Your task to perform on an android device: open app "Clock" Image 0: 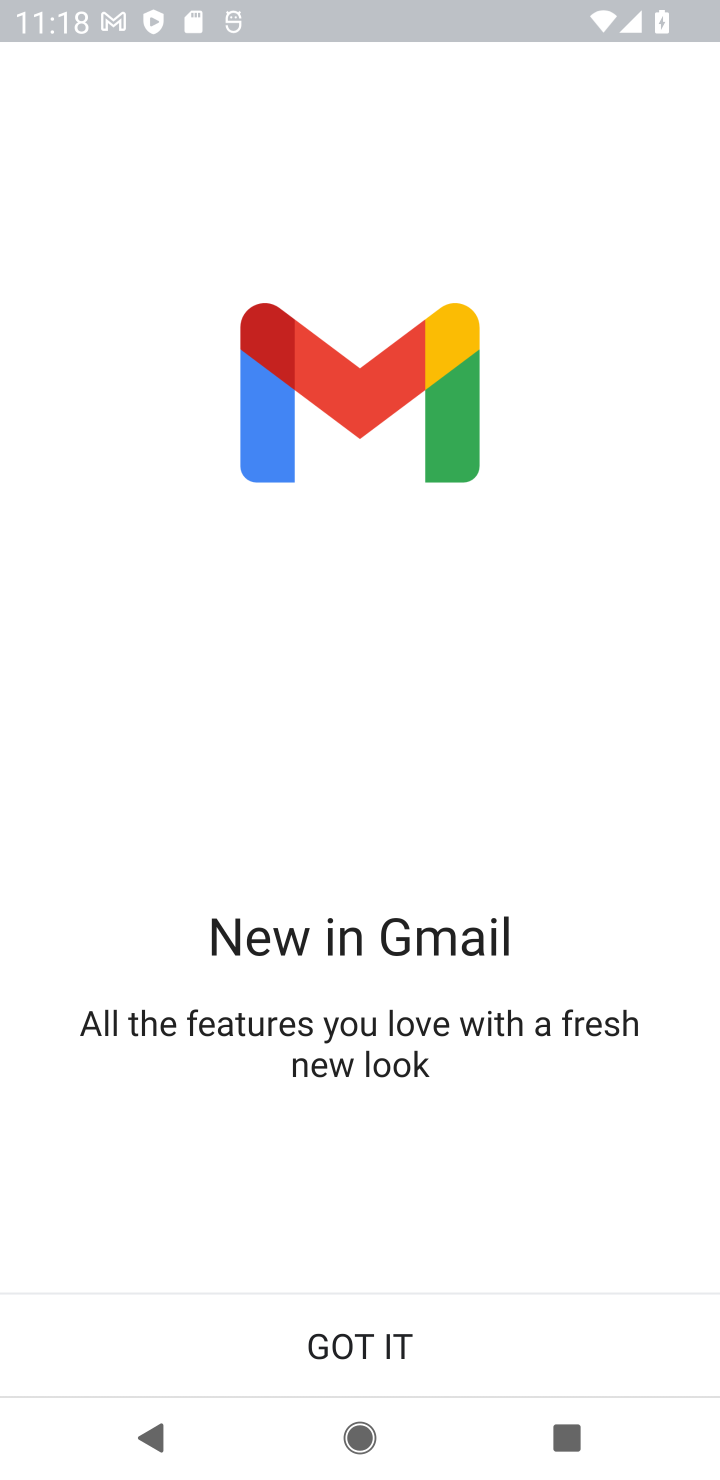
Step 0: press home button
Your task to perform on an android device: open app "Clock" Image 1: 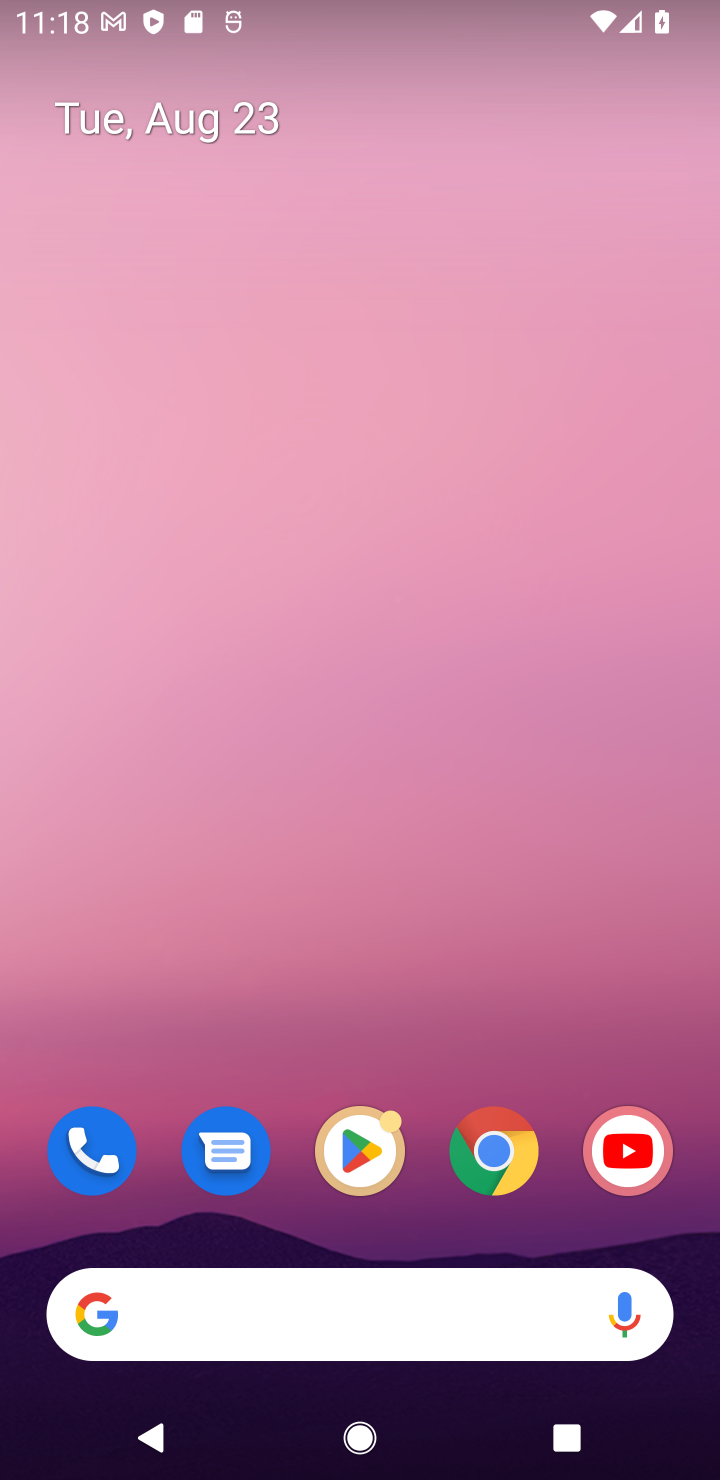
Step 1: drag from (287, 1252) to (321, 113)
Your task to perform on an android device: open app "Clock" Image 2: 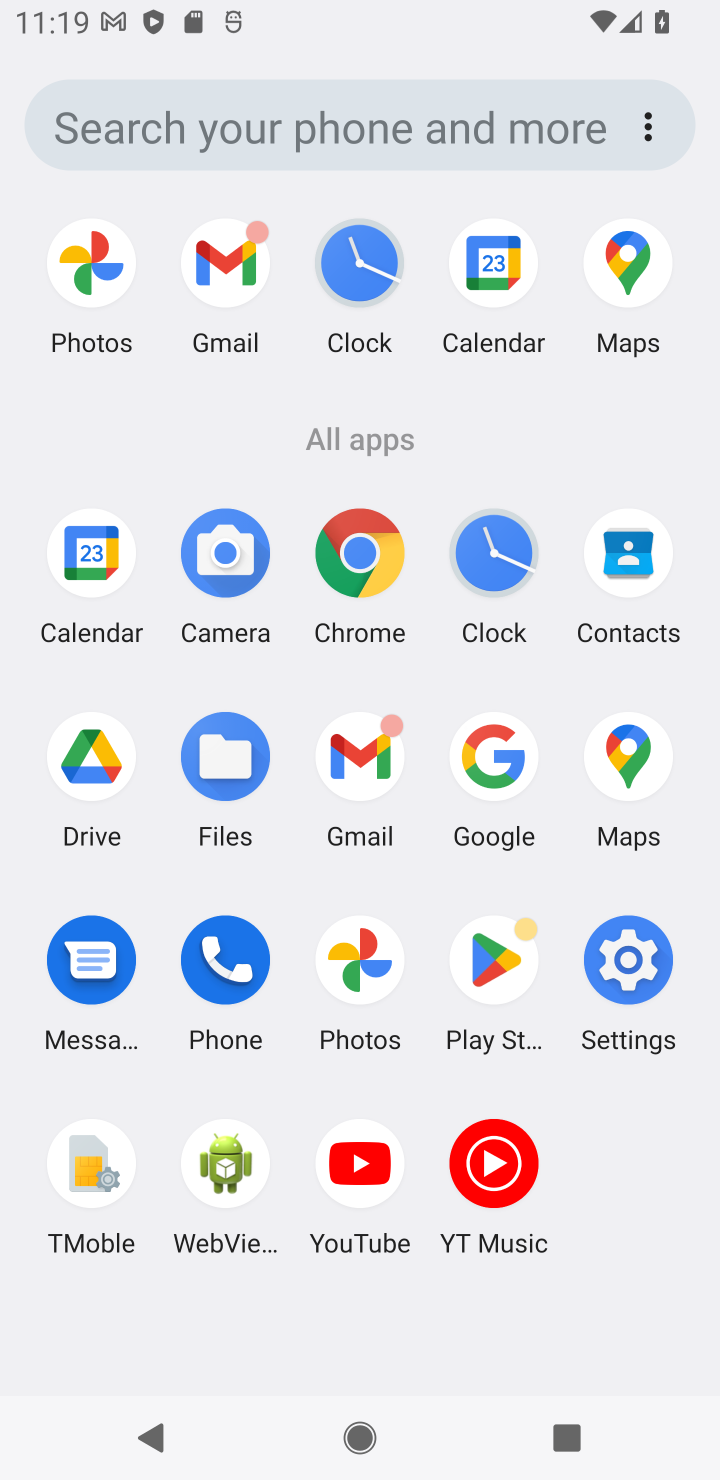
Step 2: click (500, 968)
Your task to perform on an android device: open app "Clock" Image 3: 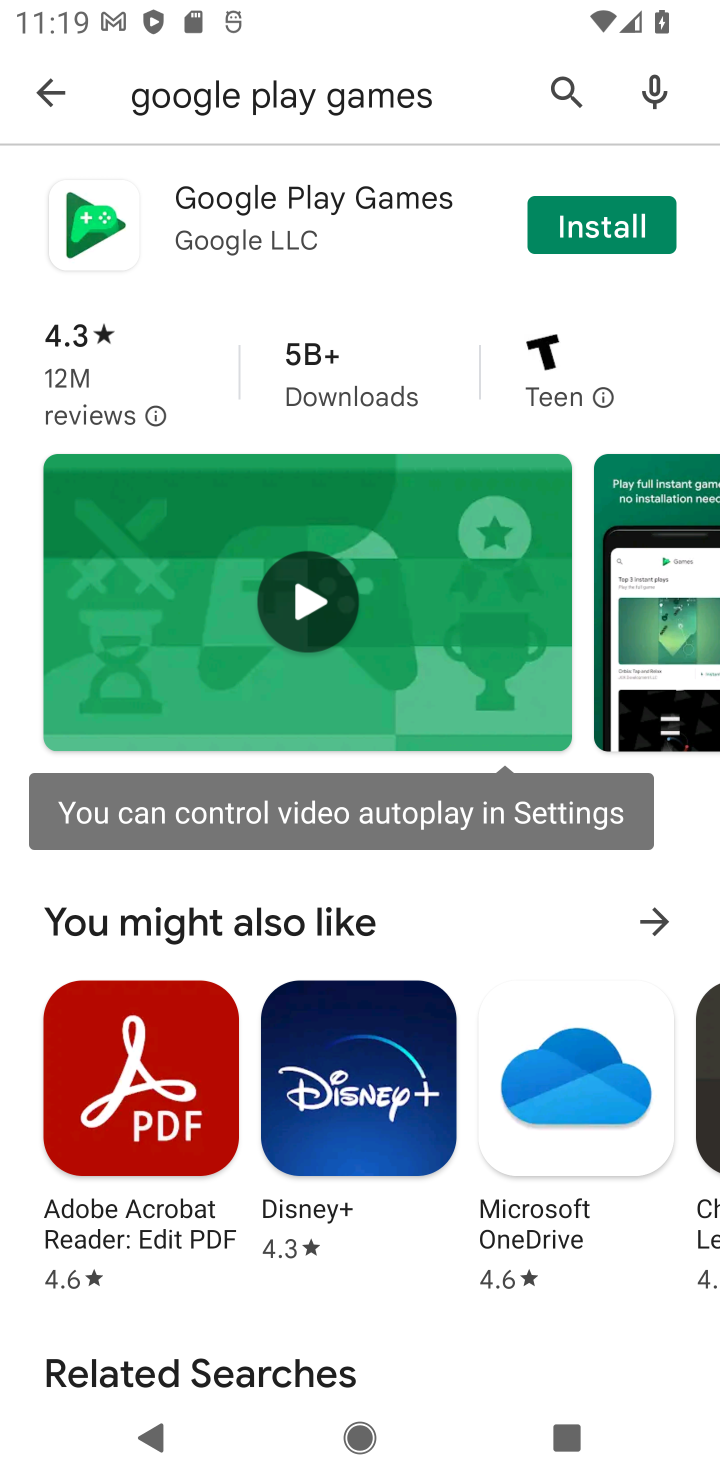
Step 3: press back button
Your task to perform on an android device: open app "Clock" Image 4: 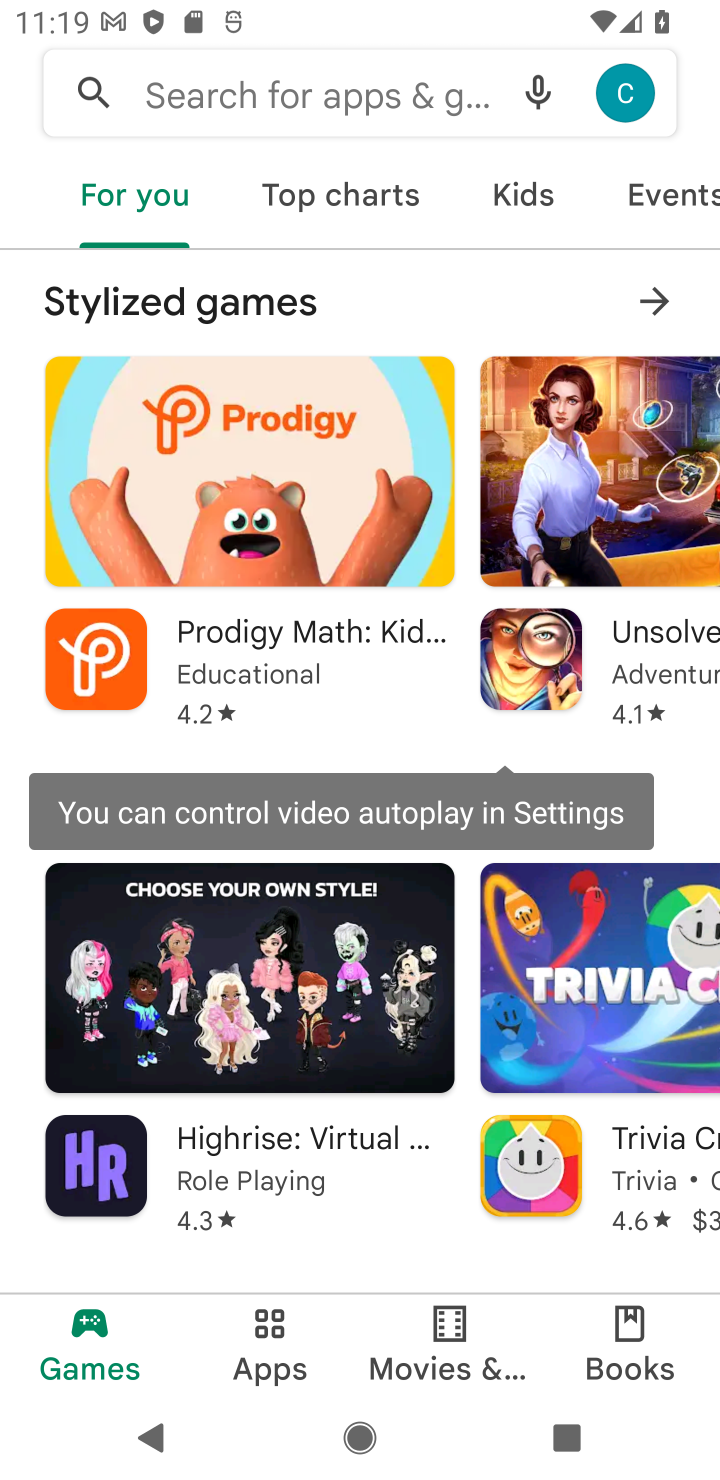
Step 4: click (382, 93)
Your task to perform on an android device: open app "Clock" Image 5: 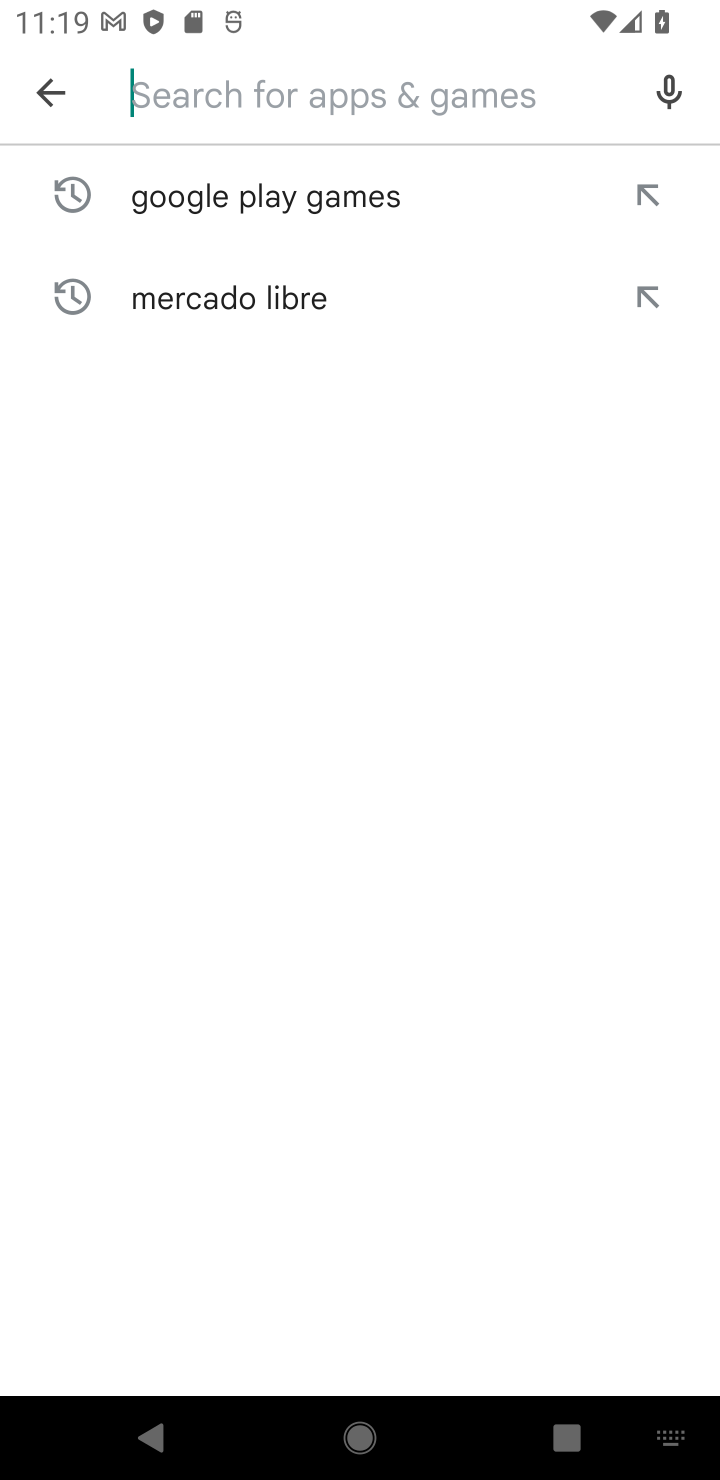
Step 5: type "Clock"
Your task to perform on an android device: open app "Clock" Image 6: 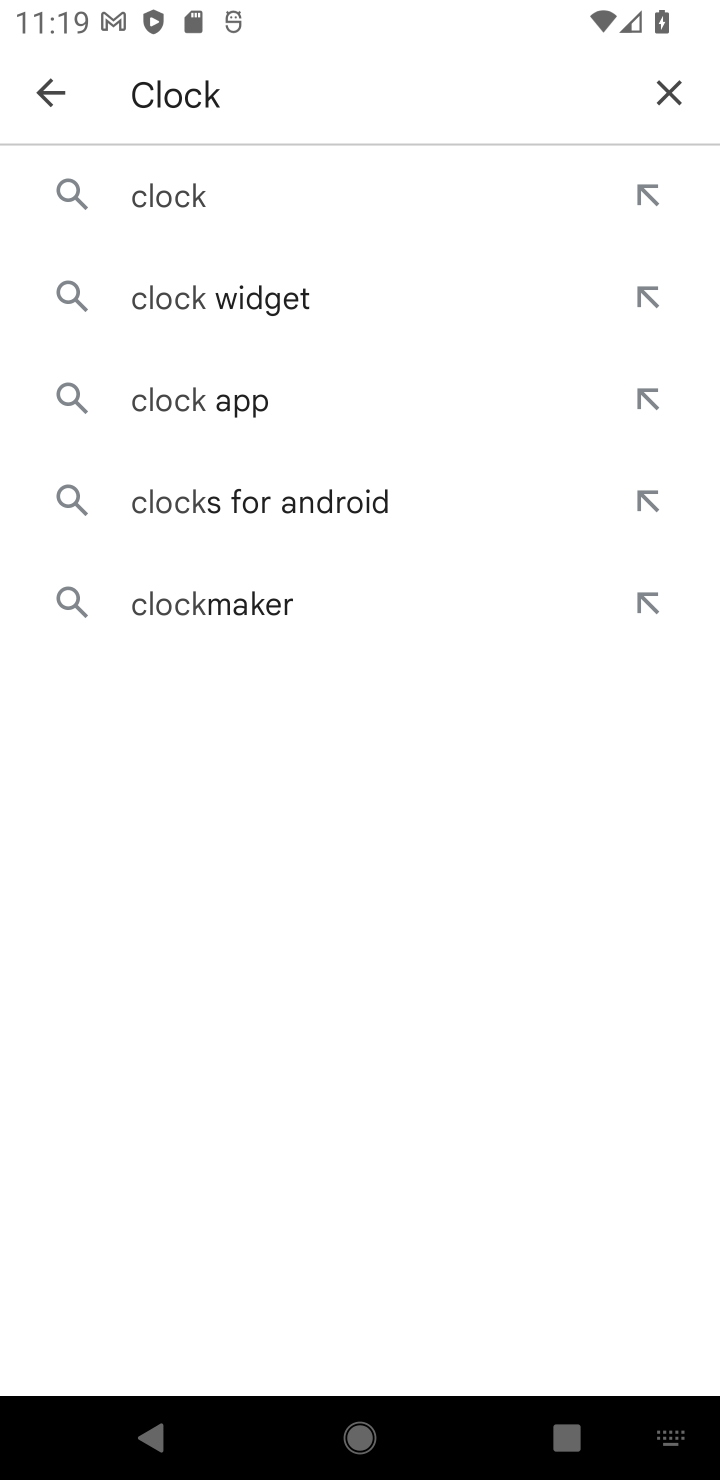
Step 6: click (172, 201)
Your task to perform on an android device: open app "Clock" Image 7: 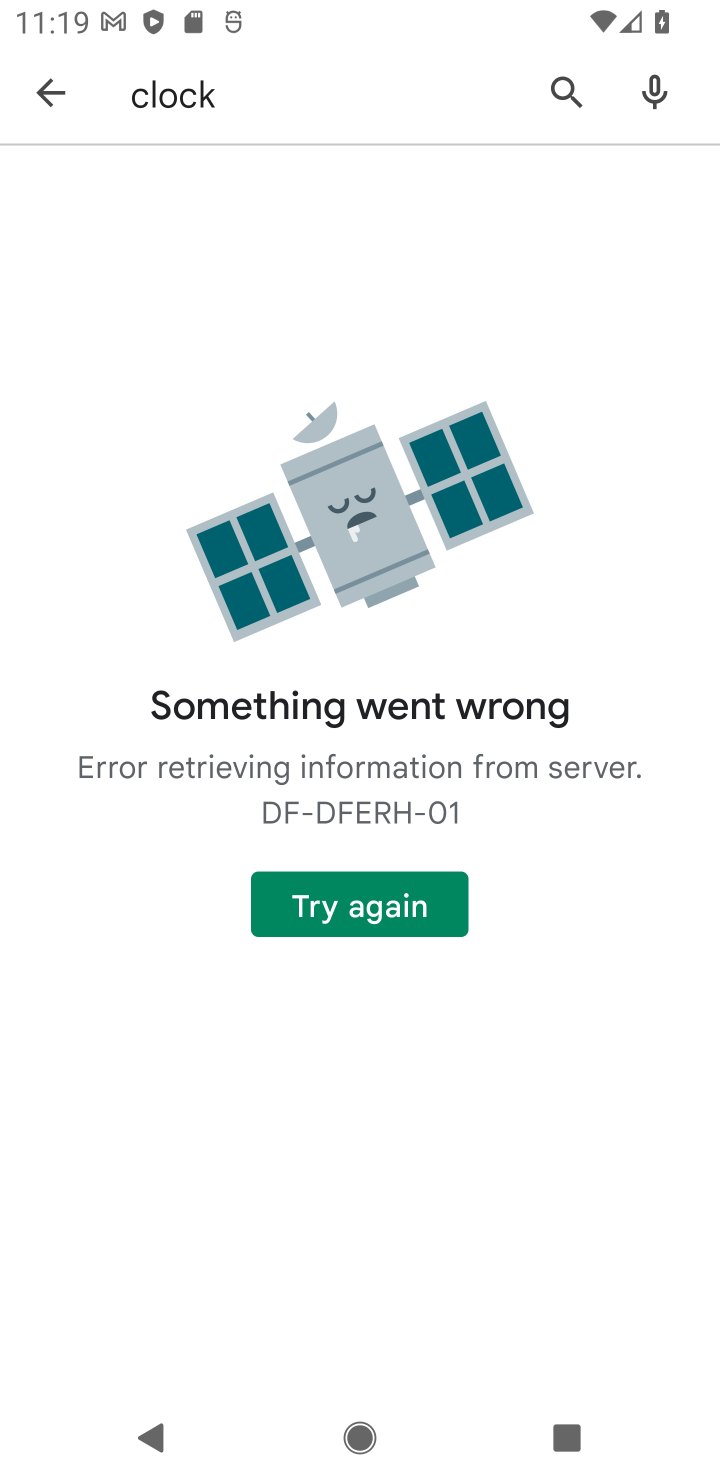
Step 7: task complete